Your task to perform on an android device: see creations saved in the google photos Image 0: 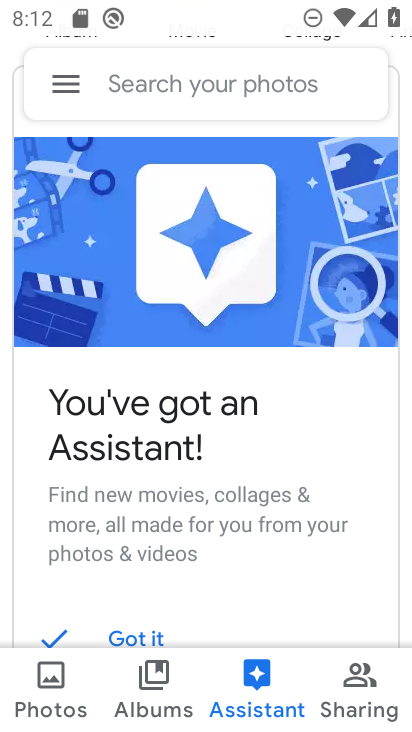
Step 0: click (116, 80)
Your task to perform on an android device: see creations saved in the google photos Image 1: 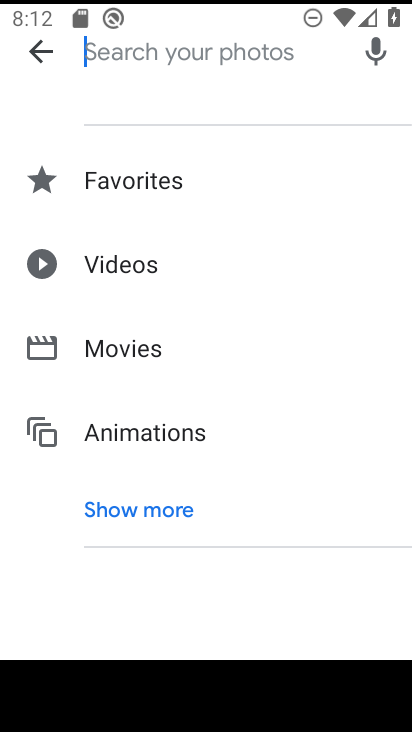
Step 1: click (169, 515)
Your task to perform on an android device: see creations saved in the google photos Image 2: 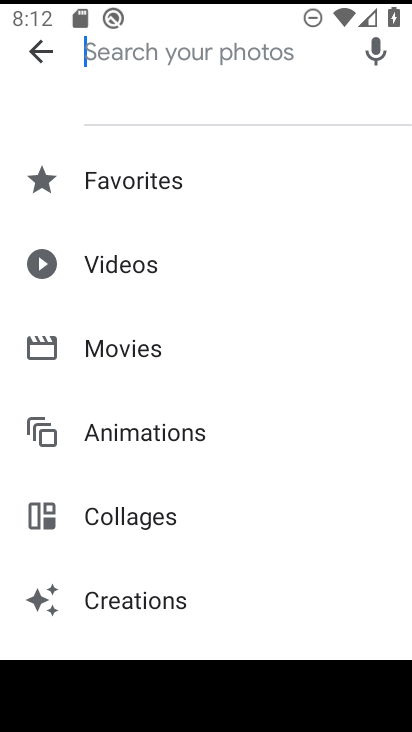
Step 2: click (141, 603)
Your task to perform on an android device: see creations saved in the google photos Image 3: 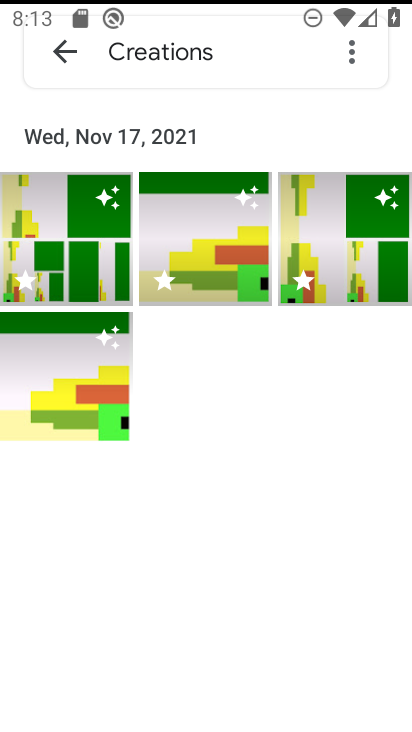
Step 3: task complete